Your task to perform on an android device: Open Android settings Image 0: 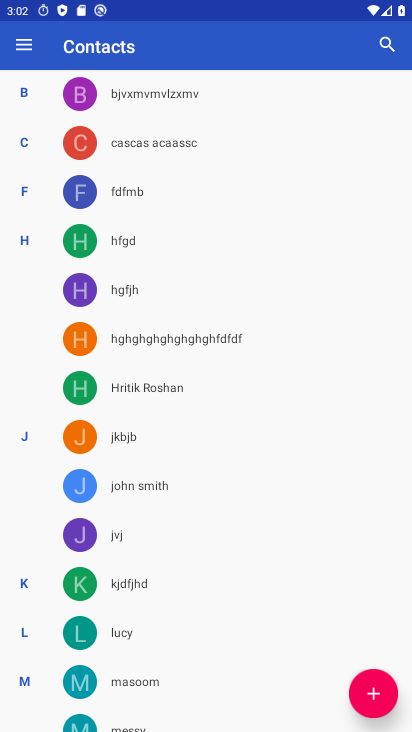
Step 0: press back button
Your task to perform on an android device: Open Android settings Image 1: 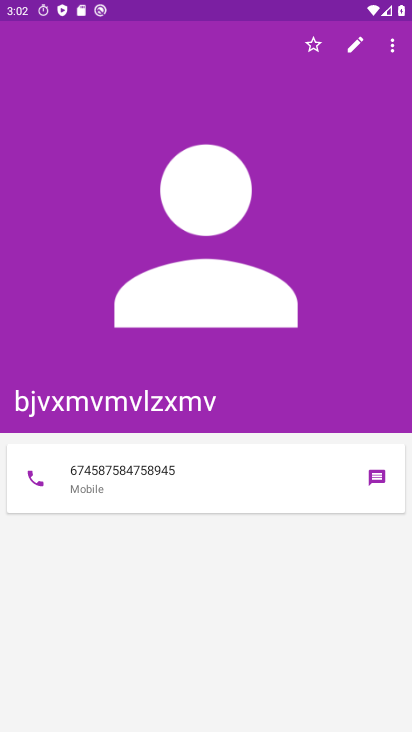
Step 1: press home button
Your task to perform on an android device: Open Android settings Image 2: 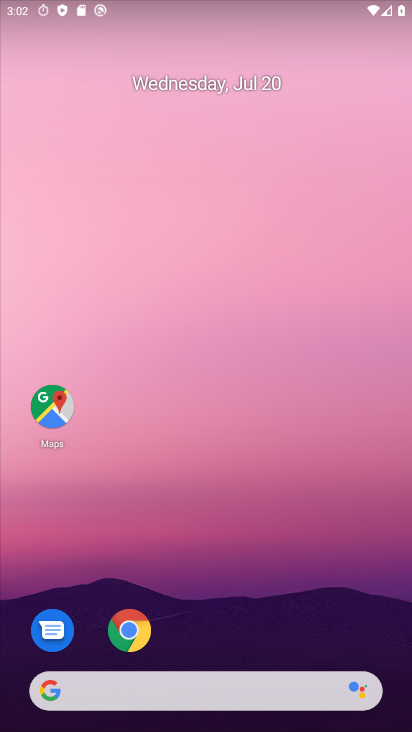
Step 2: drag from (163, 472) to (161, 227)
Your task to perform on an android device: Open Android settings Image 3: 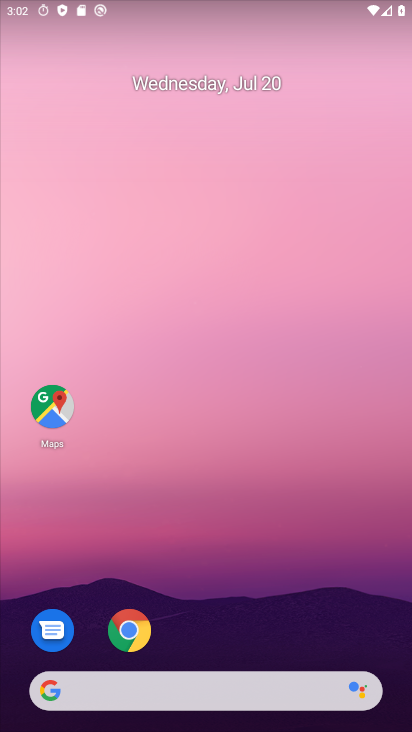
Step 3: drag from (238, 574) to (231, 322)
Your task to perform on an android device: Open Android settings Image 4: 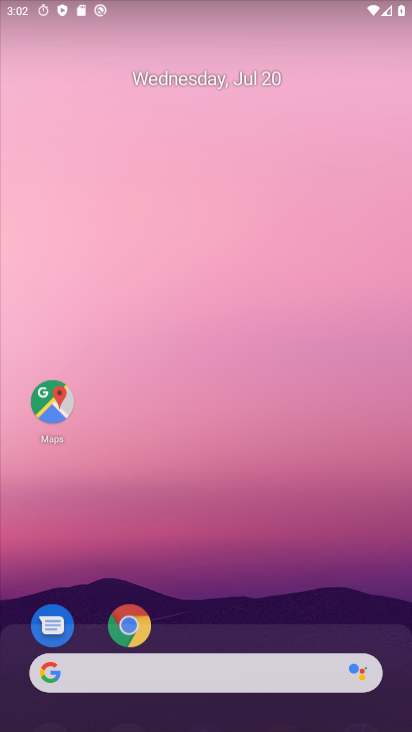
Step 4: drag from (233, 622) to (264, 207)
Your task to perform on an android device: Open Android settings Image 5: 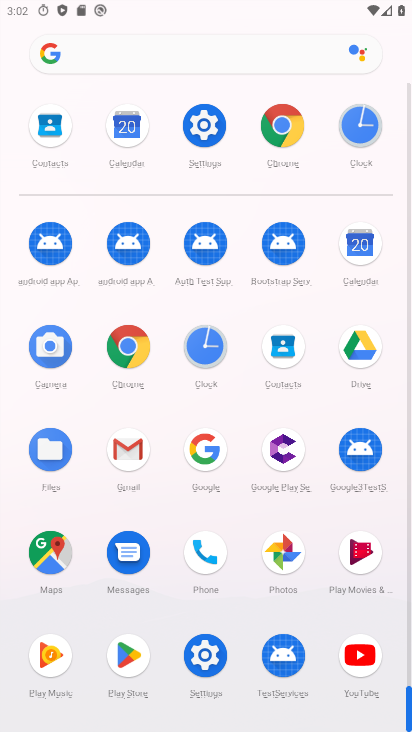
Step 5: click (201, 130)
Your task to perform on an android device: Open Android settings Image 6: 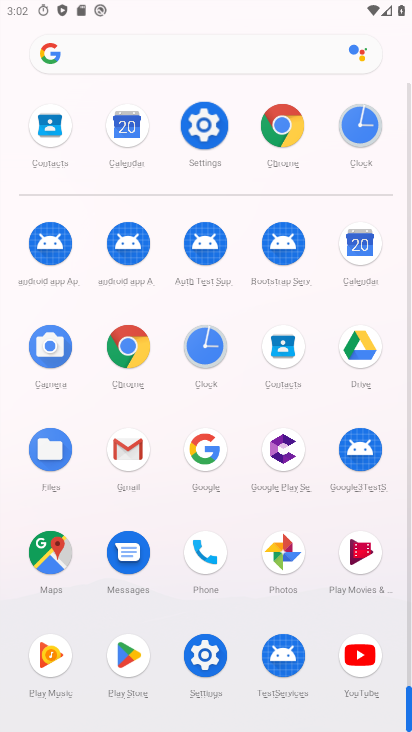
Step 6: click (201, 130)
Your task to perform on an android device: Open Android settings Image 7: 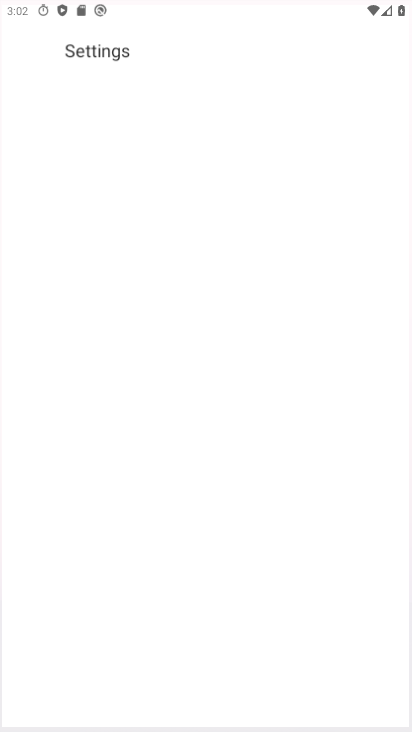
Step 7: click (198, 130)
Your task to perform on an android device: Open Android settings Image 8: 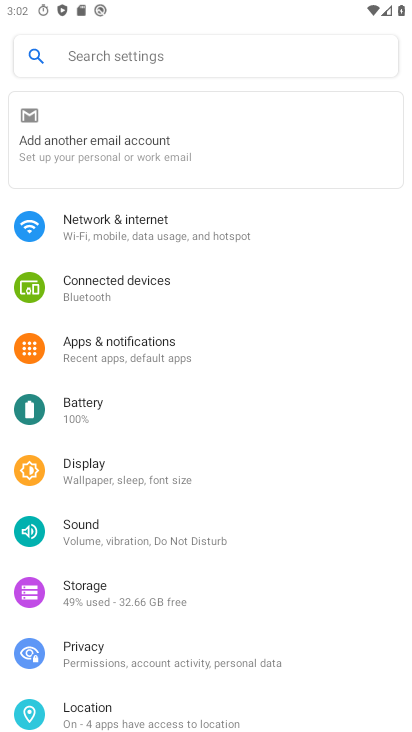
Step 8: drag from (176, 310) to (177, 233)
Your task to perform on an android device: Open Android settings Image 9: 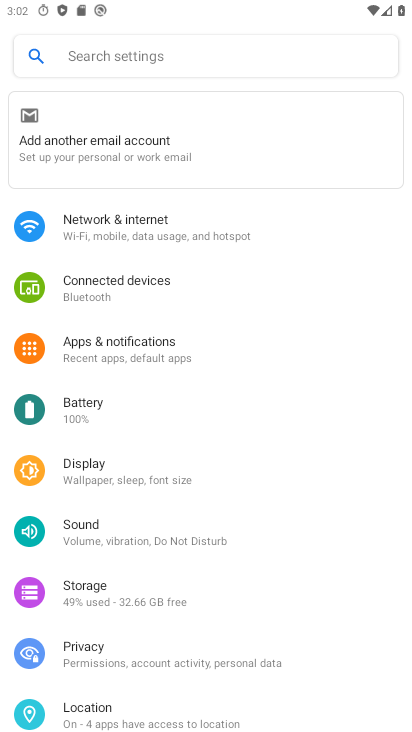
Step 9: drag from (139, 439) to (148, 172)
Your task to perform on an android device: Open Android settings Image 10: 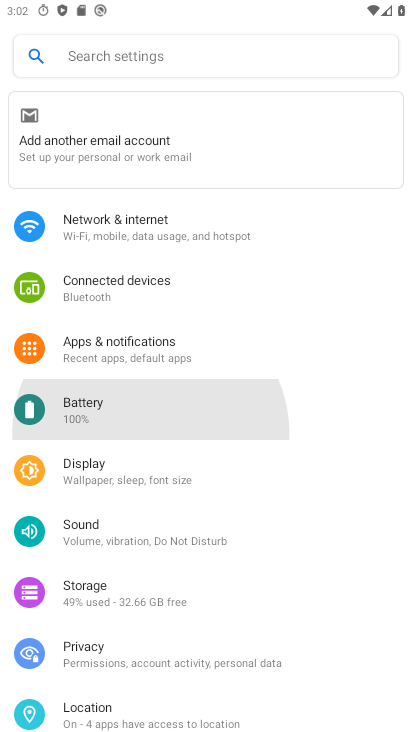
Step 10: drag from (157, 588) to (155, 159)
Your task to perform on an android device: Open Android settings Image 11: 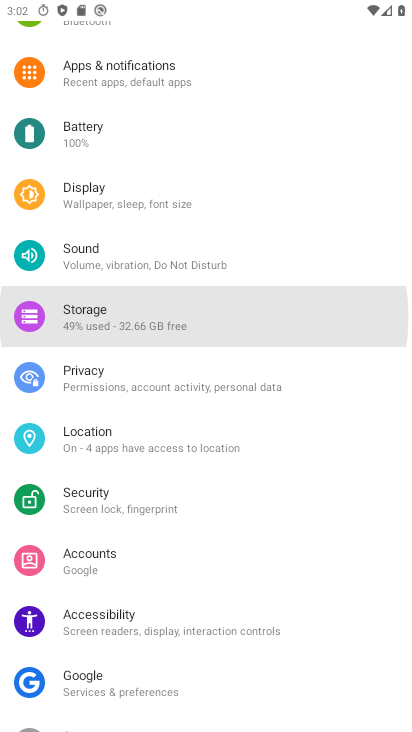
Step 11: drag from (129, 516) to (101, 180)
Your task to perform on an android device: Open Android settings Image 12: 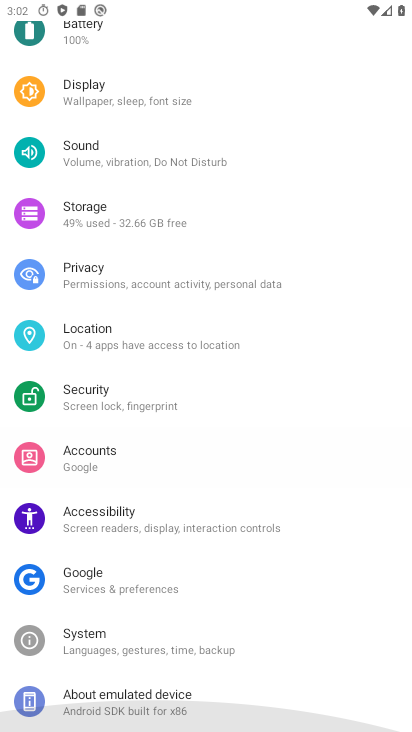
Step 12: click (167, 181)
Your task to perform on an android device: Open Android settings Image 13: 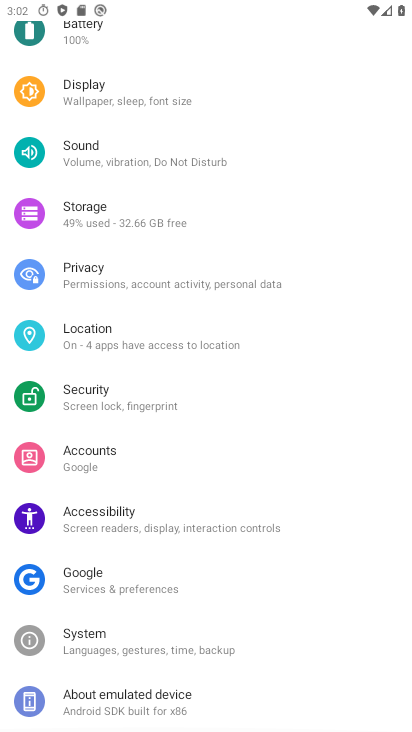
Step 13: drag from (190, 517) to (186, 234)
Your task to perform on an android device: Open Android settings Image 14: 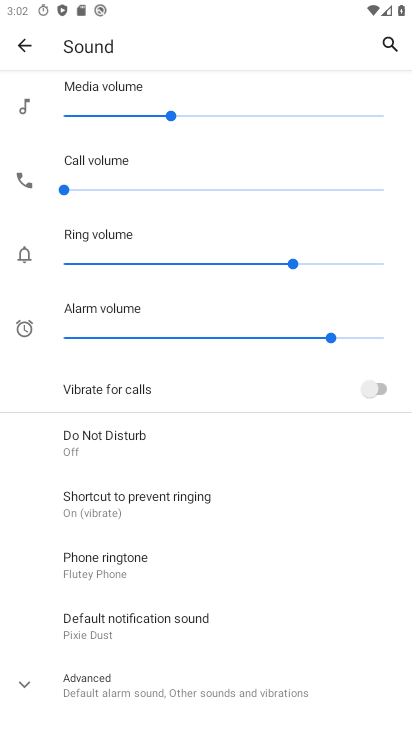
Step 14: click (115, 691)
Your task to perform on an android device: Open Android settings Image 15: 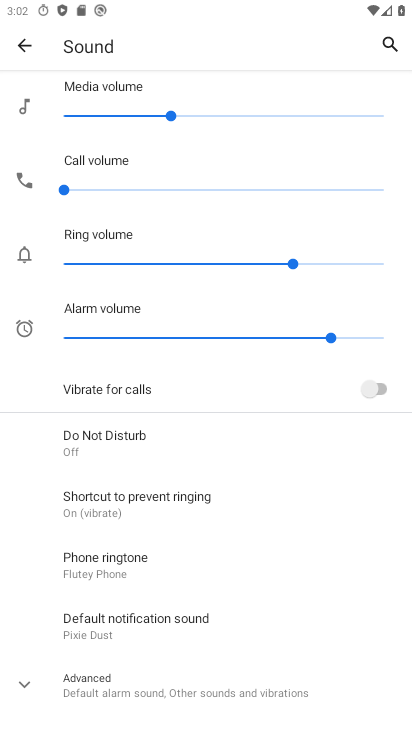
Step 15: click (118, 700)
Your task to perform on an android device: Open Android settings Image 16: 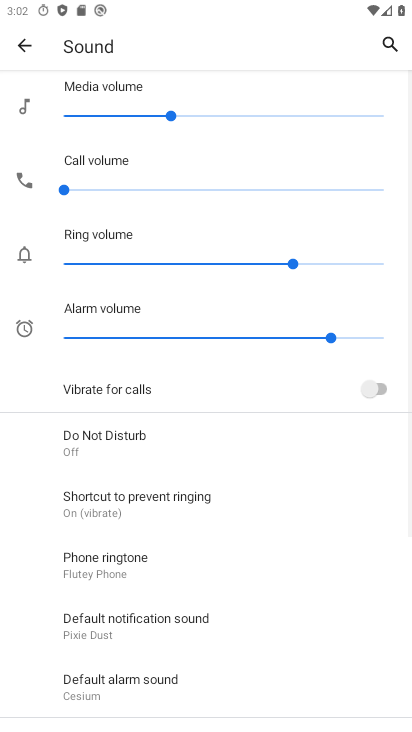
Step 16: drag from (143, 498) to (157, 212)
Your task to perform on an android device: Open Android settings Image 17: 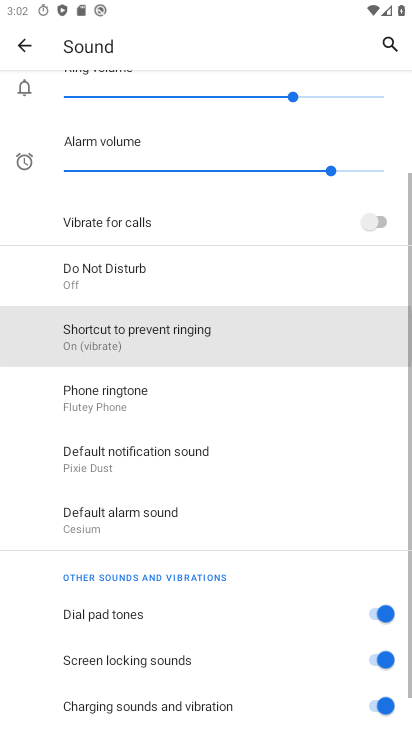
Step 17: drag from (188, 516) to (226, 171)
Your task to perform on an android device: Open Android settings Image 18: 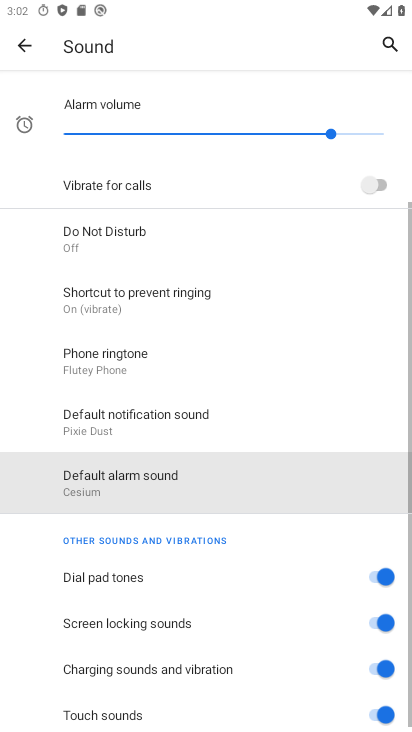
Step 18: drag from (262, 441) to (270, 207)
Your task to perform on an android device: Open Android settings Image 19: 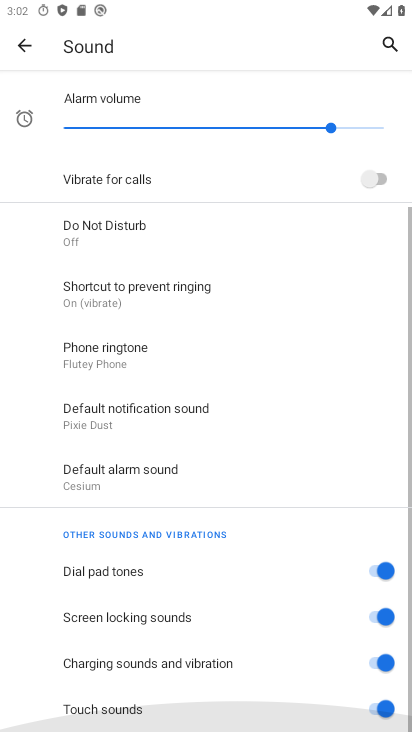
Step 19: drag from (252, 518) to (281, 288)
Your task to perform on an android device: Open Android settings Image 20: 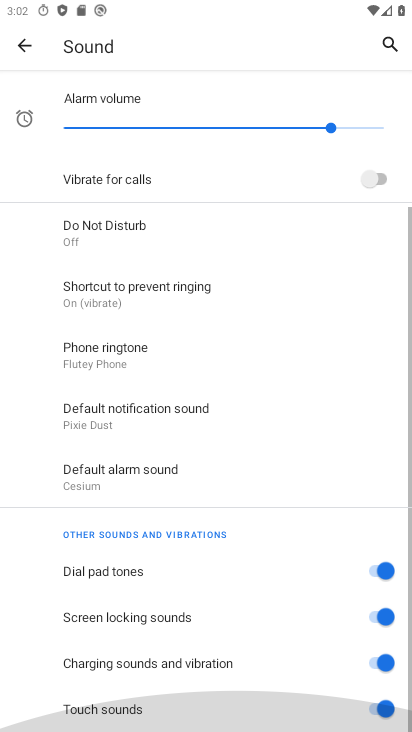
Step 20: drag from (297, 549) to (297, 191)
Your task to perform on an android device: Open Android settings Image 21: 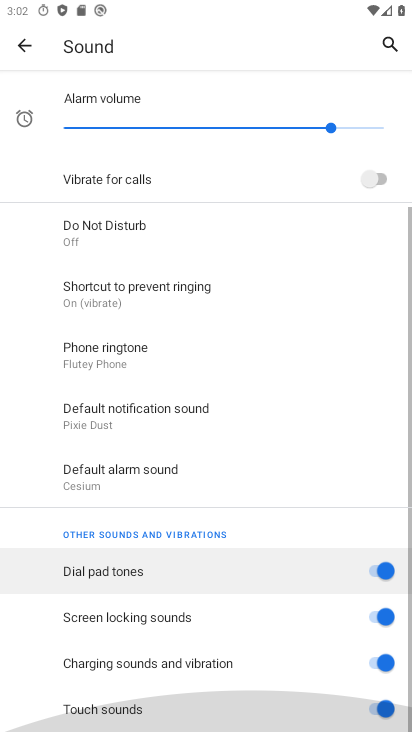
Step 21: drag from (248, 609) to (238, 440)
Your task to perform on an android device: Open Android settings Image 22: 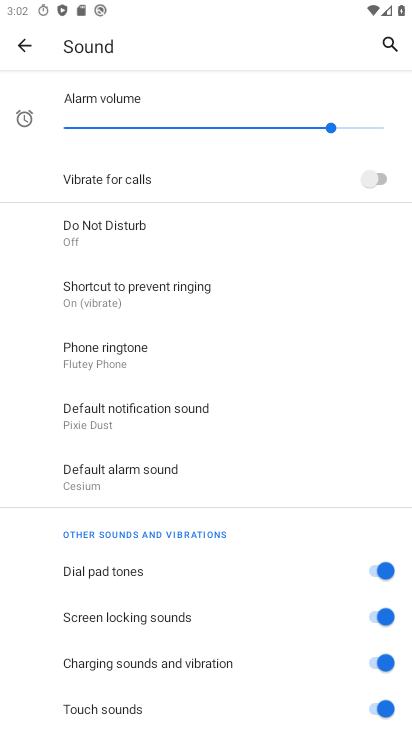
Step 22: click (29, 47)
Your task to perform on an android device: Open Android settings Image 23: 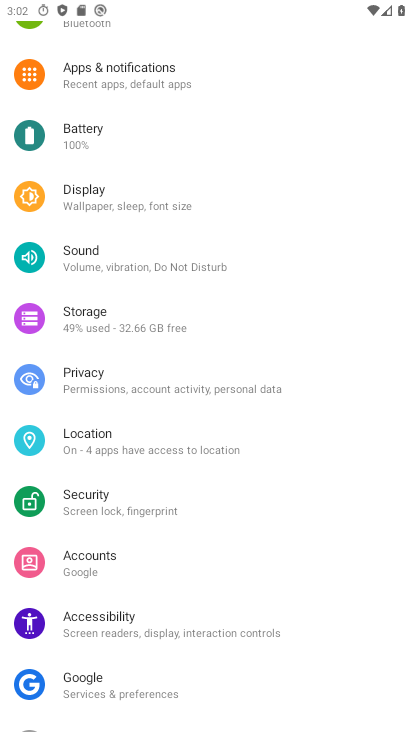
Step 23: drag from (152, 556) to (152, 316)
Your task to perform on an android device: Open Android settings Image 24: 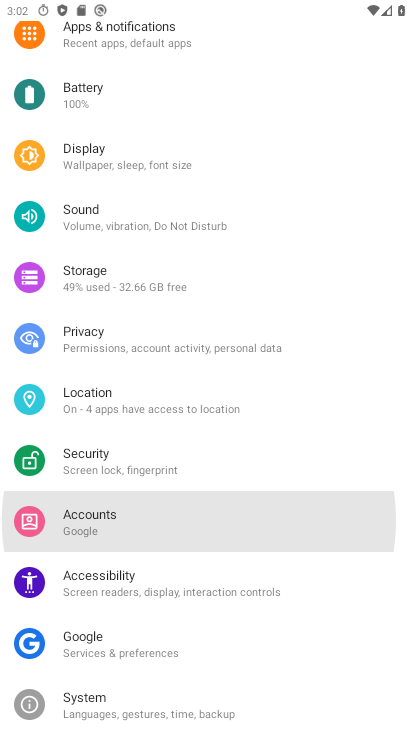
Step 24: drag from (169, 566) to (179, 302)
Your task to perform on an android device: Open Android settings Image 25: 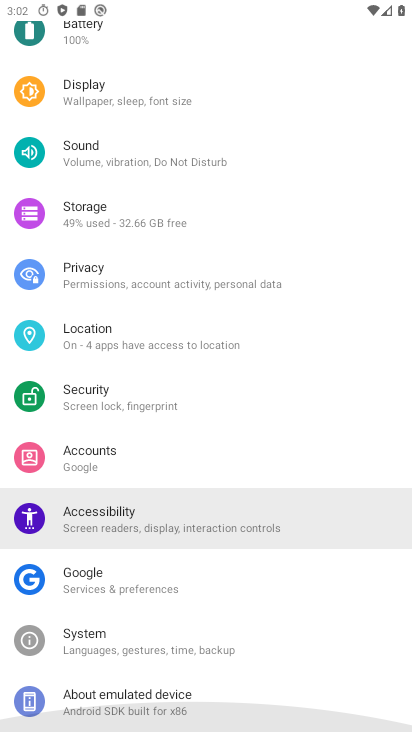
Step 25: drag from (197, 563) to (197, 363)
Your task to perform on an android device: Open Android settings Image 26: 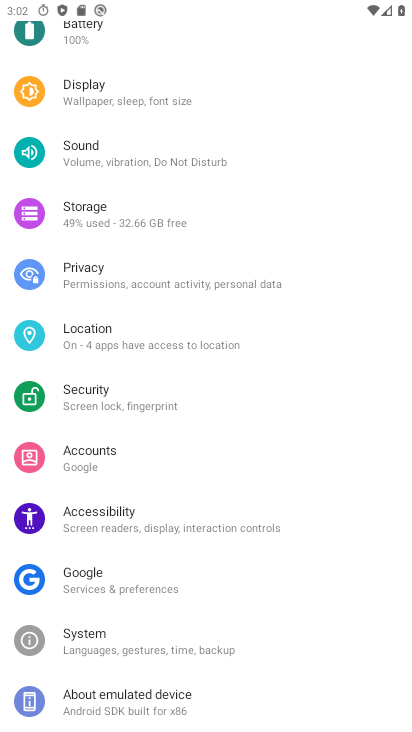
Step 26: drag from (112, 453) to (92, 274)
Your task to perform on an android device: Open Android settings Image 27: 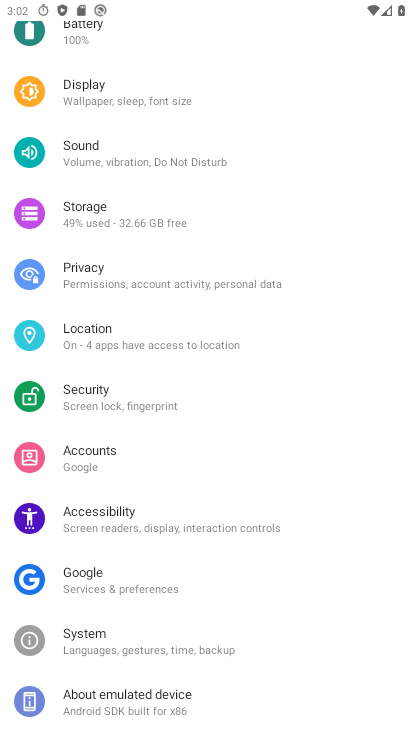
Step 27: click (108, 701)
Your task to perform on an android device: Open Android settings Image 28: 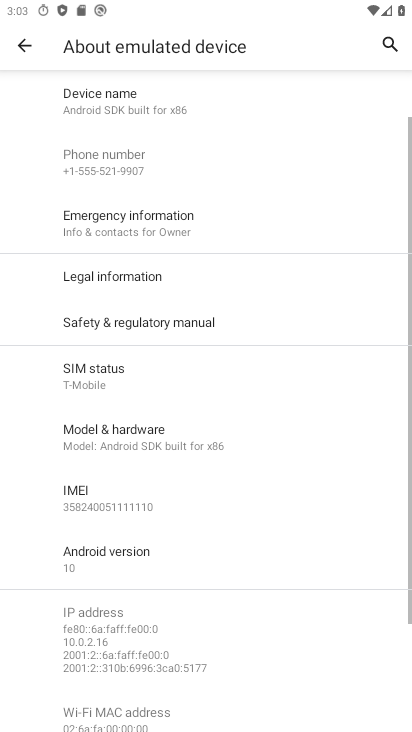
Step 28: task complete